Your task to perform on an android device: change your default location settings in chrome Image 0: 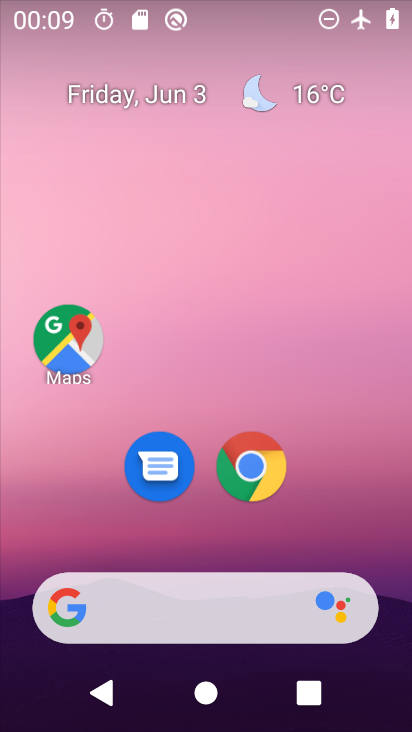
Step 0: click (268, 478)
Your task to perform on an android device: change your default location settings in chrome Image 1: 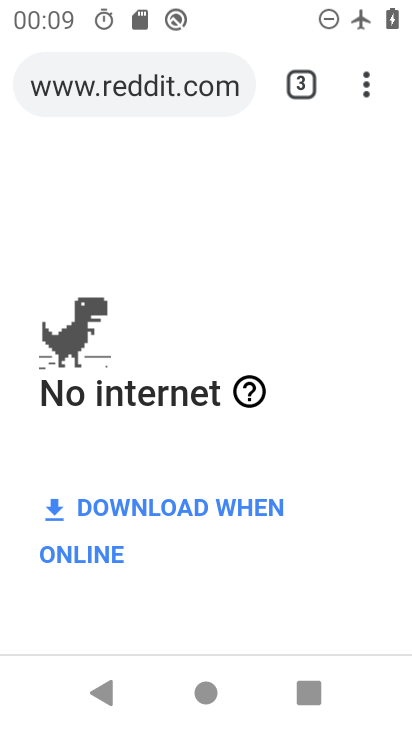
Step 1: drag from (355, 80) to (62, 511)
Your task to perform on an android device: change your default location settings in chrome Image 2: 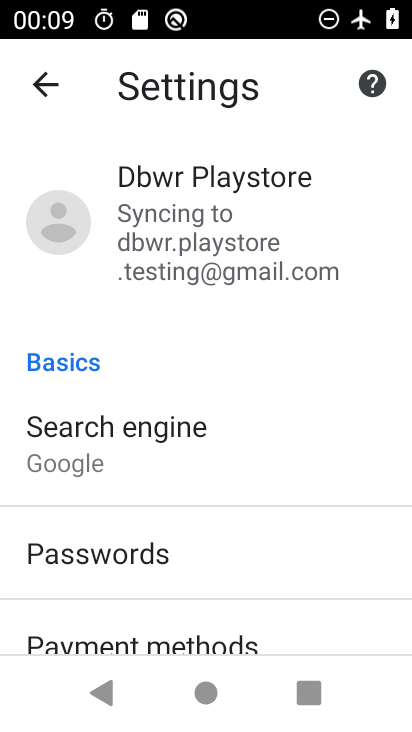
Step 2: drag from (217, 584) to (192, 350)
Your task to perform on an android device: change your default location settings in chrome Image 3: 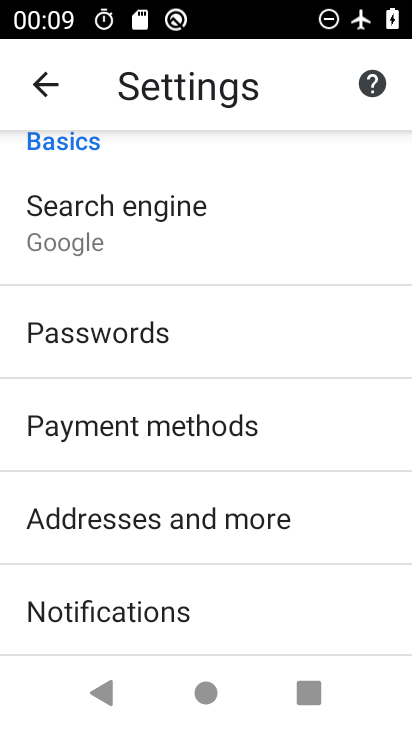
Step 3: drag from (210, 615) to (202, 385)
Your task to perform on an android device: change your default location settings in chrome Image 4: 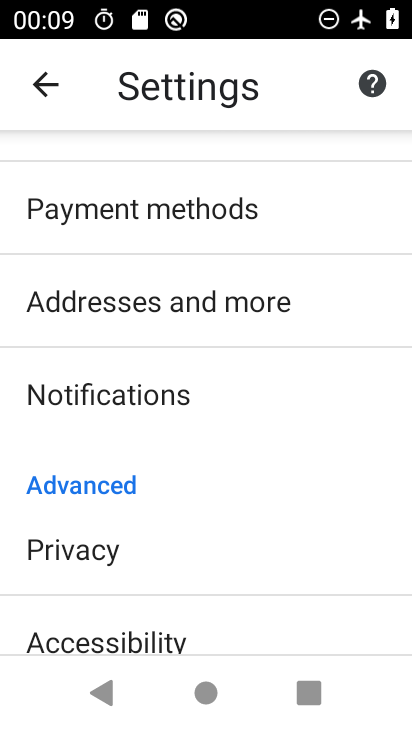
Step 4: drag from (189, 574) to (179, 398)
Your task to perform on an android device: change your default location settings in chrome Image 5: 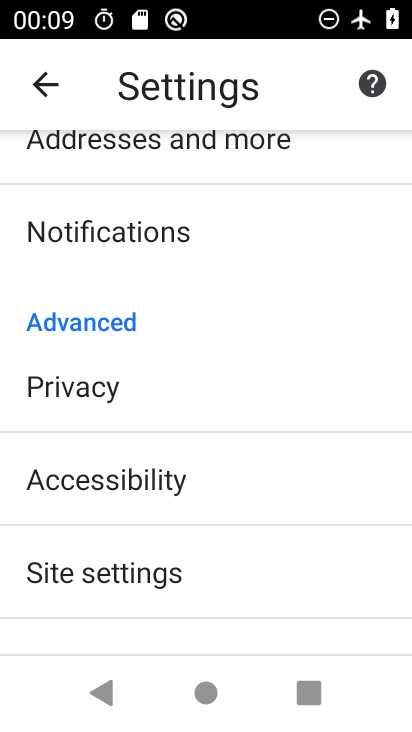
Step 5: click (157, 579)
Your task to perform on an android device: change your default location settings in chrome Image 6: 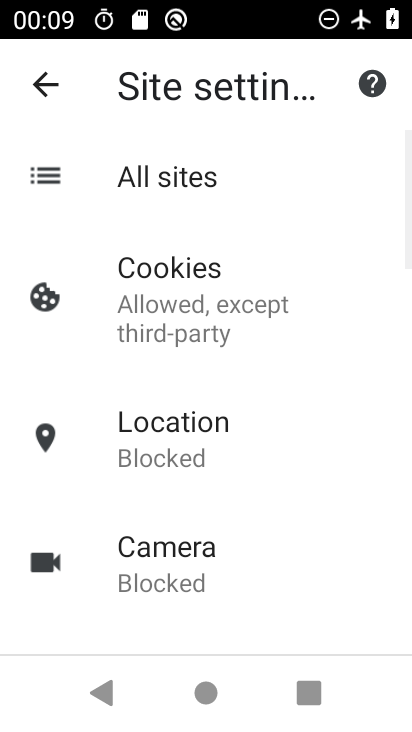
Step 6: click (174, 462)
Your task to perform on an android device: change your default location settings in chrome Image 7: 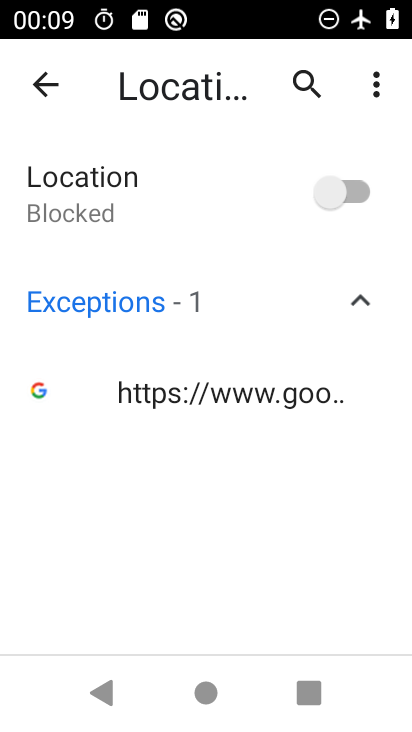
Step 7: click (364, 191)
Your task to perform on an android device: change your default location settings in chrome Image 8: 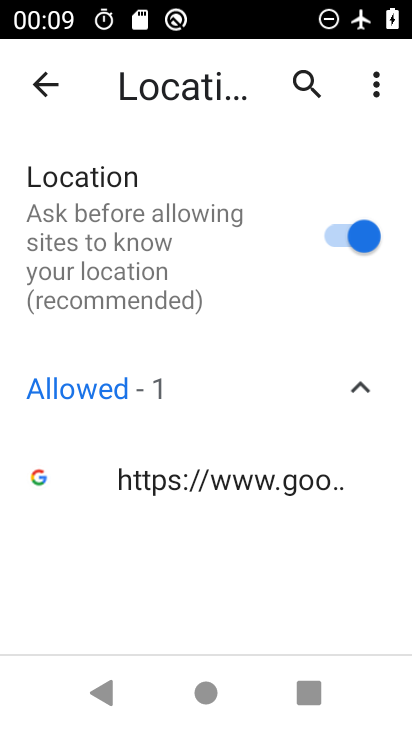
Step 8: task complete